Your task to perform on an android device: empty trash in google photos Image 0: 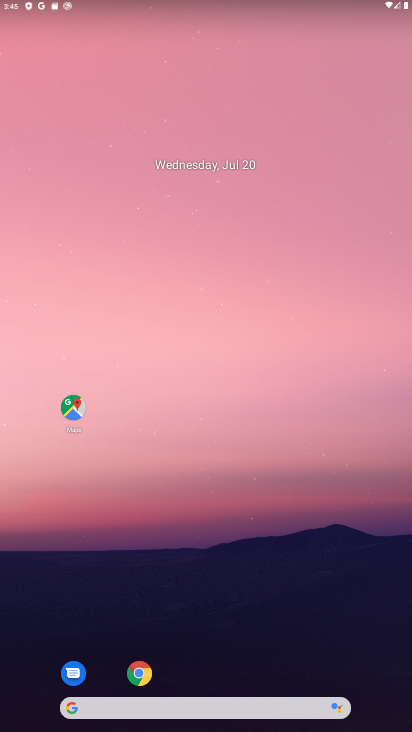
Step 0: press home button
Your task to perform on an android device: empty trash in google photos Image 1: 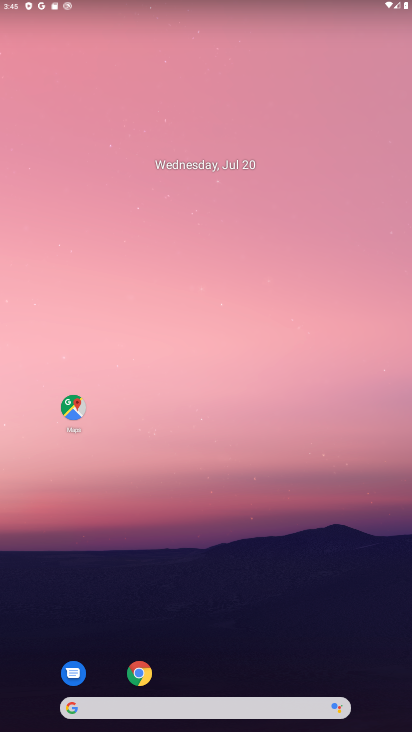
Step 1: drag from (247, 621) to (343, 157)
Your task to perform on an android device: empty trash in google photos Image 2: 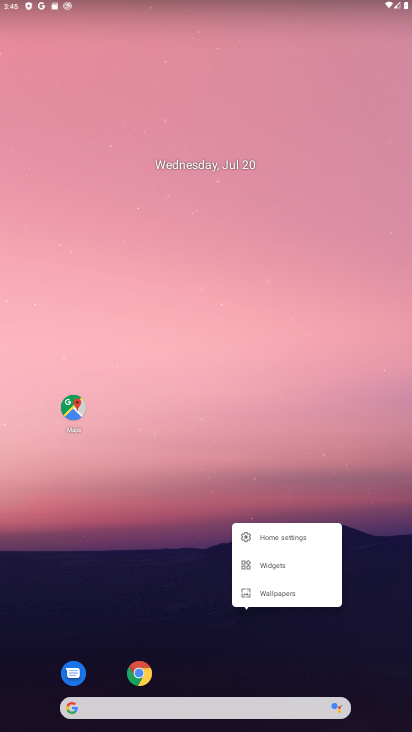
Step 2: press home button
Your task to perform on an android device: empty trash in google photos Image 3: 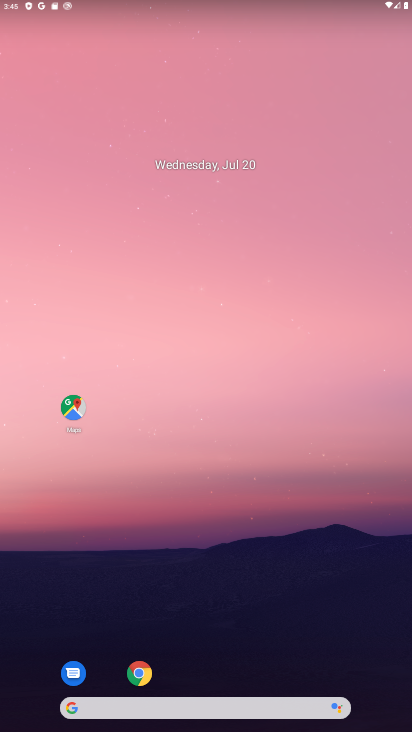
Step 3: drag from (222, 586) to (265, 156)
Your task to perform on an android device: empty trash in google photos Image 4: 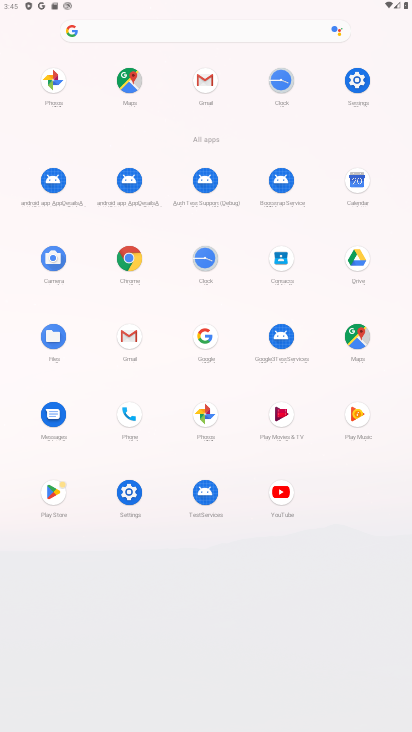
Step 4: click (205, 415)
Your task to perform on an android device: empty trash in google photos Image 5: 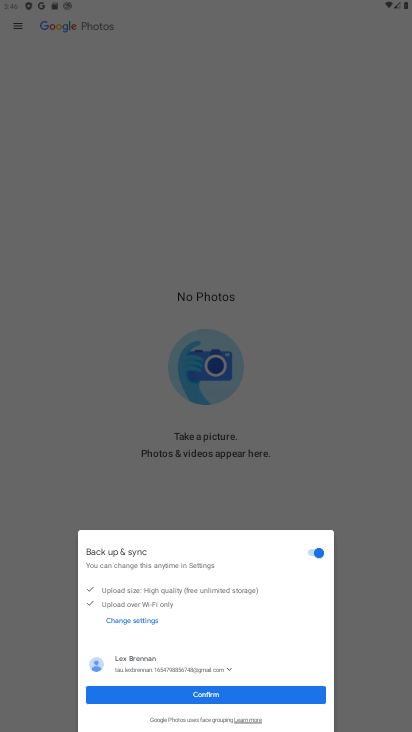
Step 5: click (221, 699)
Your task to perform on an android device: empty trash in google photos Image 6: 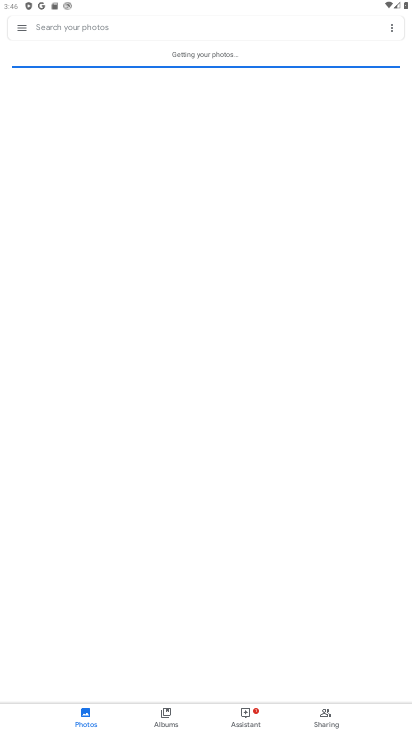
Step 6: click (28, 30)
Your task to perform on an android device: empty trash in google photos Image 7: 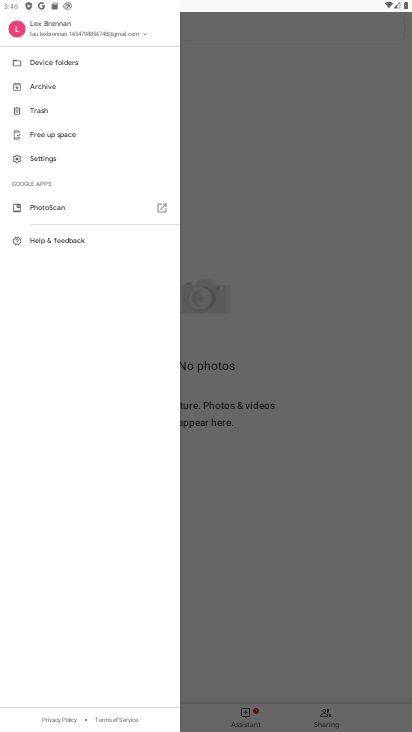
Step 7: click (58, 106)
Your task to perform on an android device: empty trash in google photos Image 8: 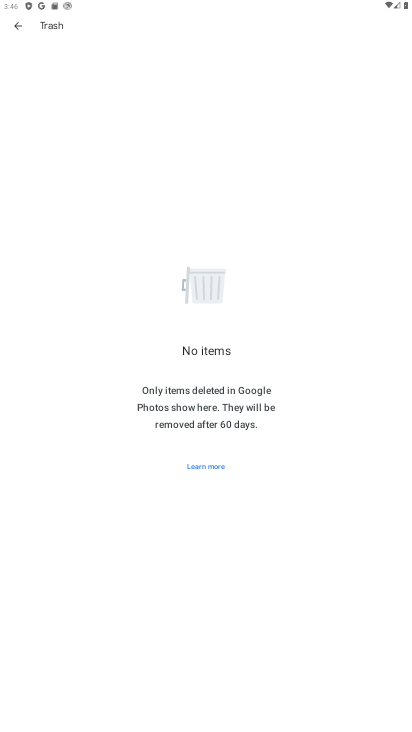
Step 8: task complete